Your task to perform on an android device: Open the calculator app Image 0: 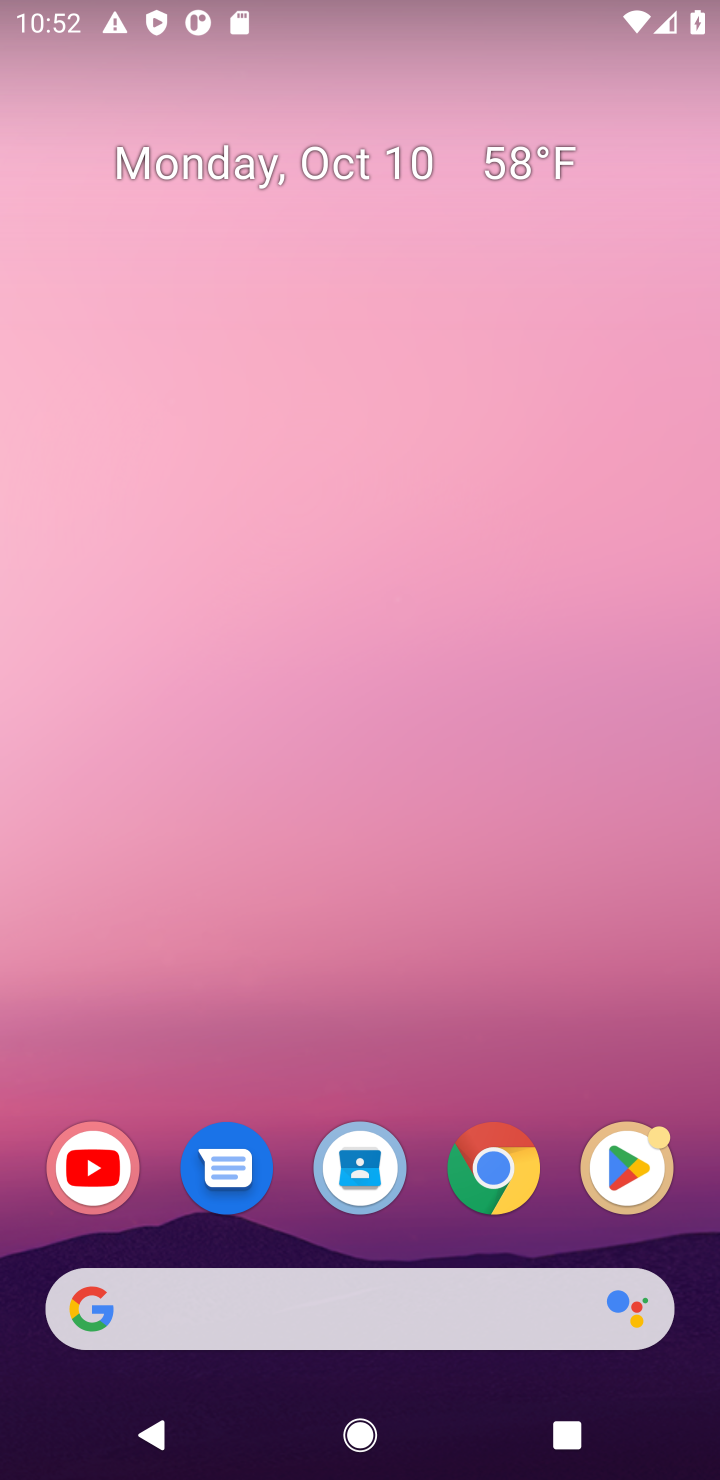
Step 0: drag from (298, 914) to (355, 374)
Your task to perform on an android device: Open the calculator app Image 1: 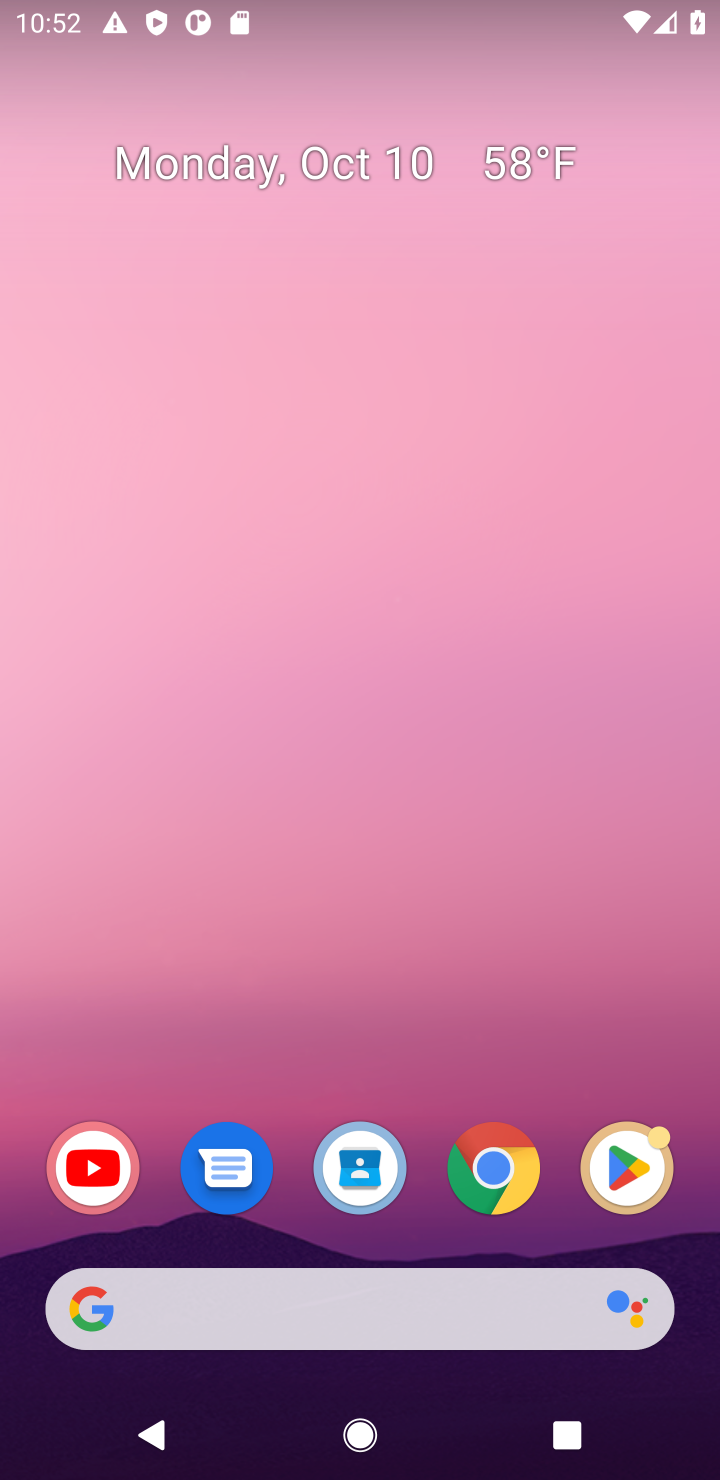
Step 1: task complete